Your task to perform on an android device: see creations saved in the google photos Image 0: 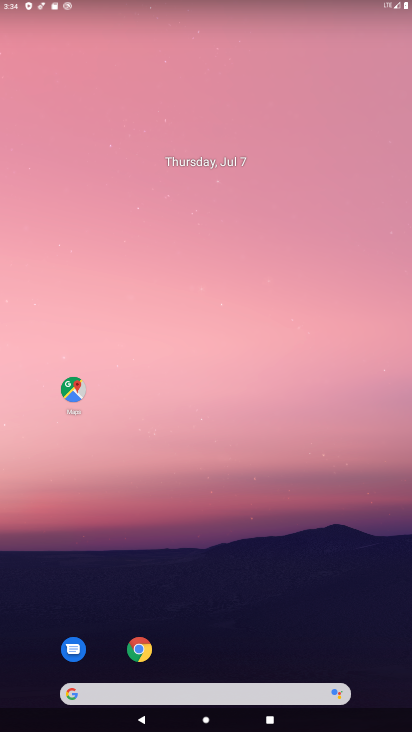
Step 0: drag from (305, 552) to (310, 110)
Your task to perform on an android device: see creations saved in the google photos Image 1: 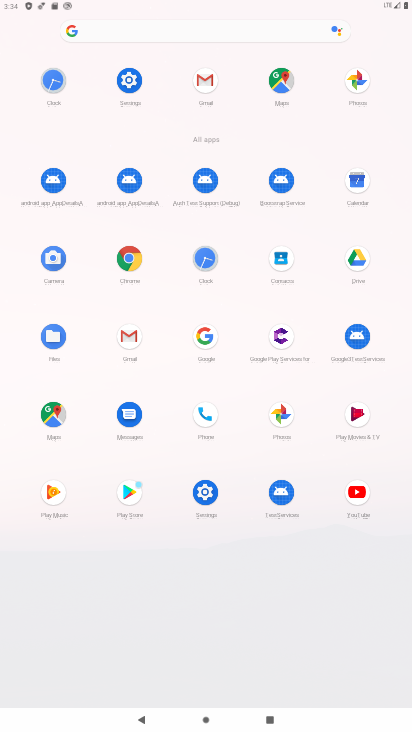
Step 1: click (285, 424)
Your task to perform on an android device: see creations saved in the google photos Image 2: 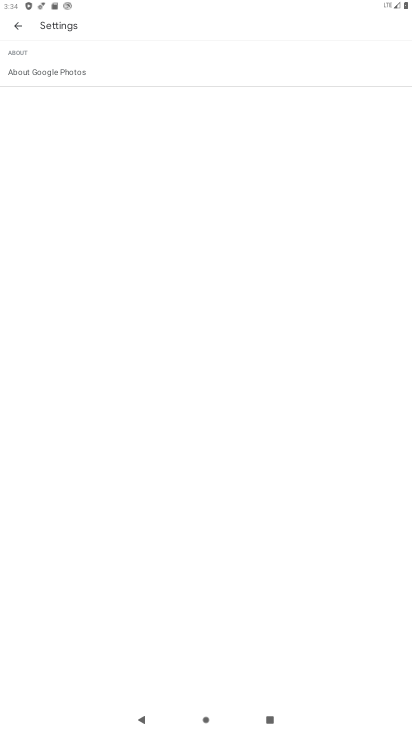
Step 2: click (18, 28)
Your task to perform on an android device: see creations saved in the google photos Image 3: 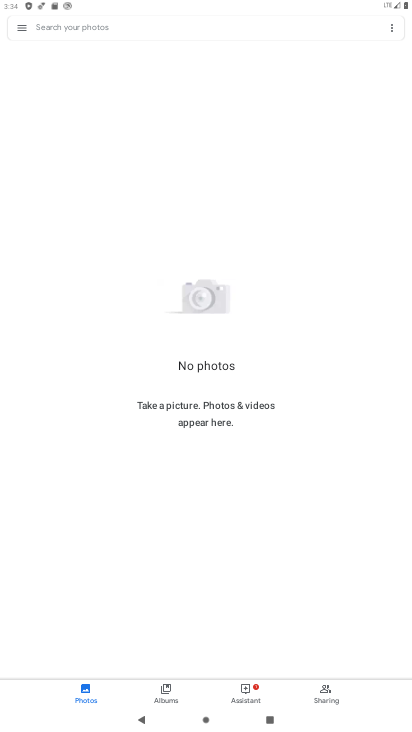
Step 3: task complete